Your task to perform on an android device: Open network settings Image 0: 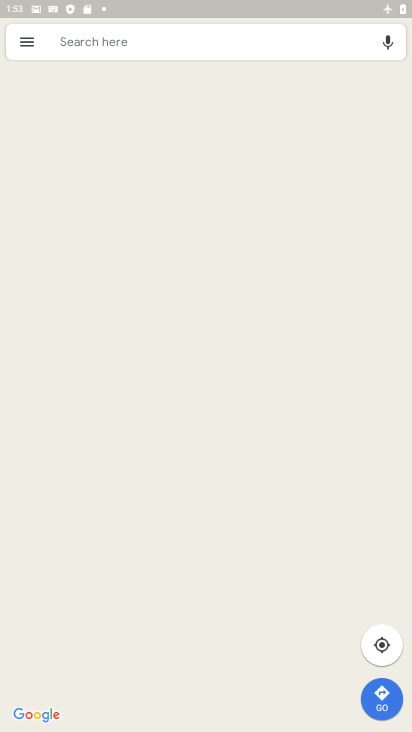
Step 0: press home button
Your task to perform on an android device: Open network settings Image 1: 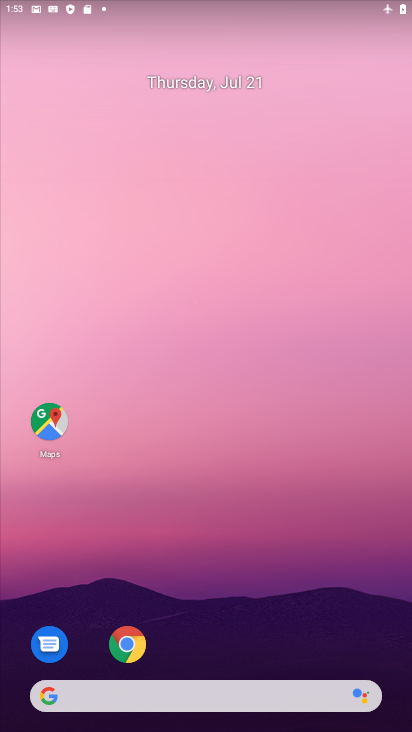
Step 1: drag from (224, 652) to (214, 205)
Your task to perform on an android device: Open network settings Image 2: 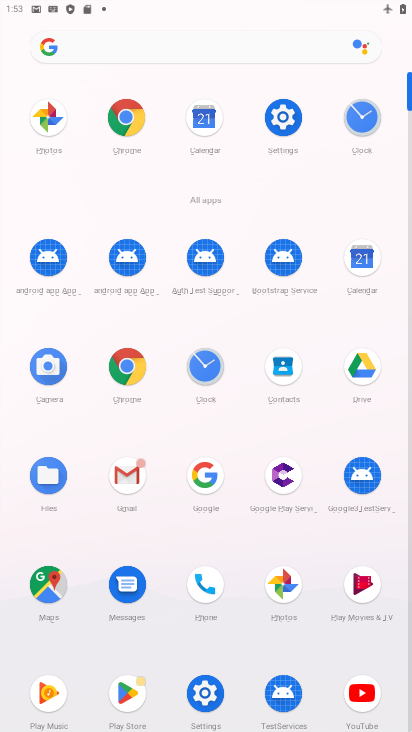
Step 2: click (277, 99)
Your task to perform on an android device: Open network settings Image 3: 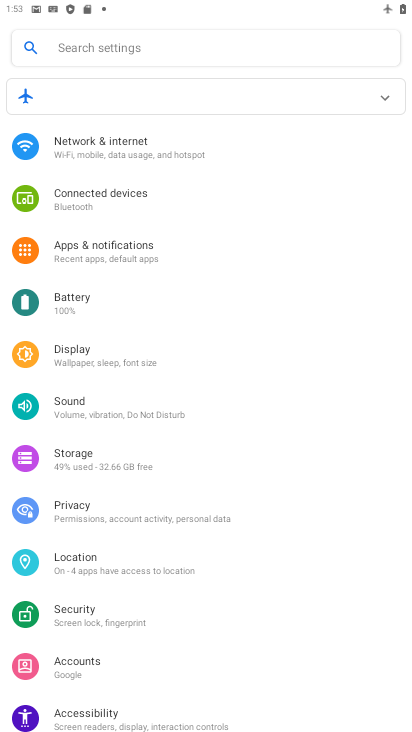
Step 3: click (218, 148)
Your task to perform on an android device: Open network settings Image 4: 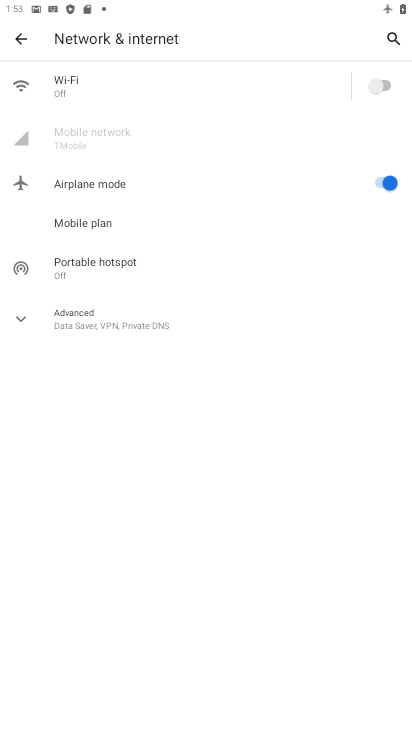
Step 4: task complete